Your task to perform on an android device: turn off wifi Image 0: 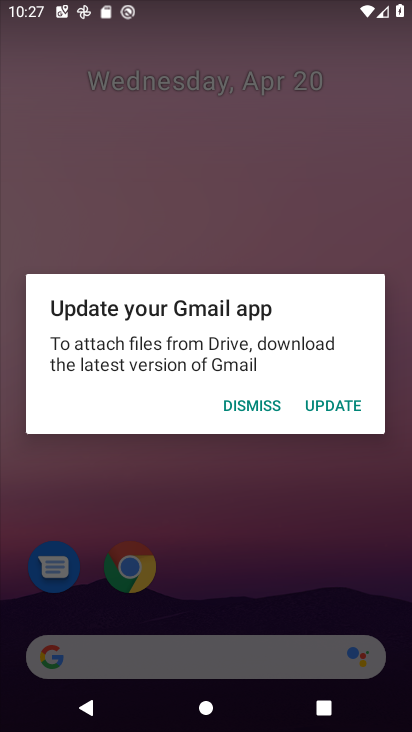
Step 0: press home button
Your task to perform on an android device: turn off wifi Image 1: 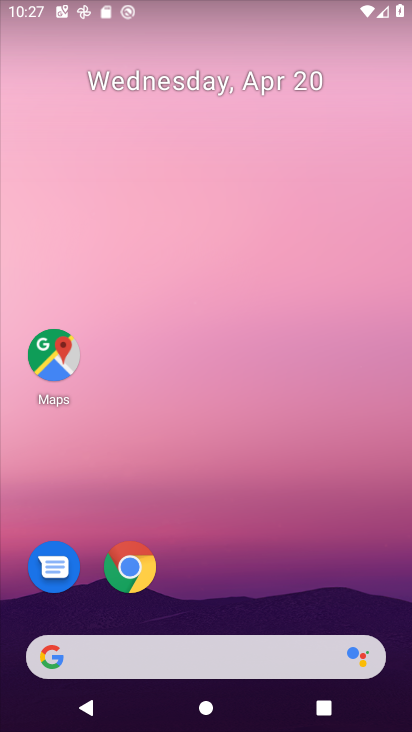
Step 1: drag from (341, 595) to (342, 220)
Your task to perform on an android device: turn off wifi Image 2: 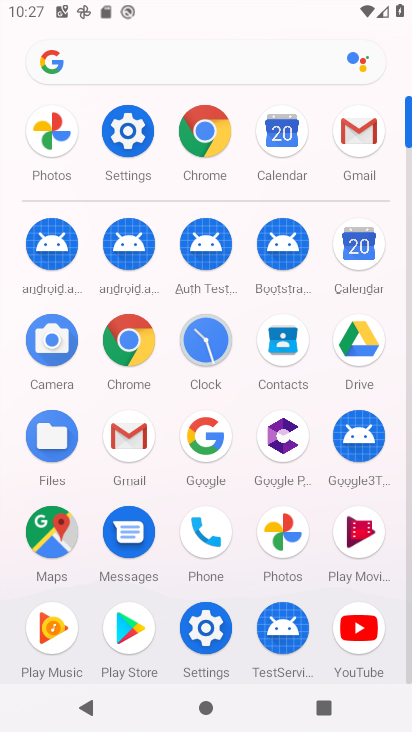
Step 2: click (136, 135)
Your task to perform on an android device: turn off wifi Image 3: 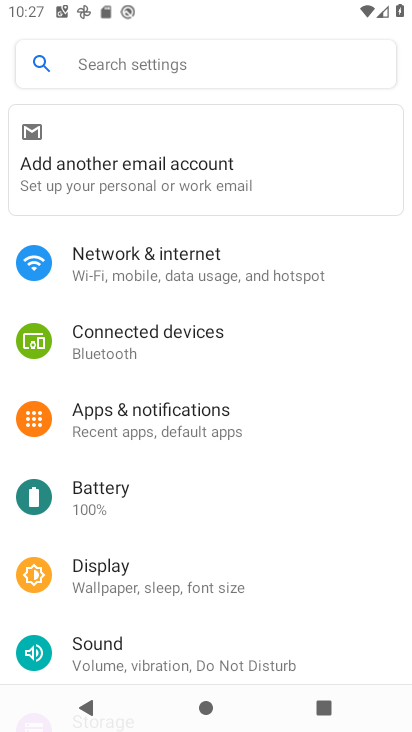
Step 3: drag from (357, 595) to (374, 442)
Your task to perform on an android device: turn off wifi Image 4: 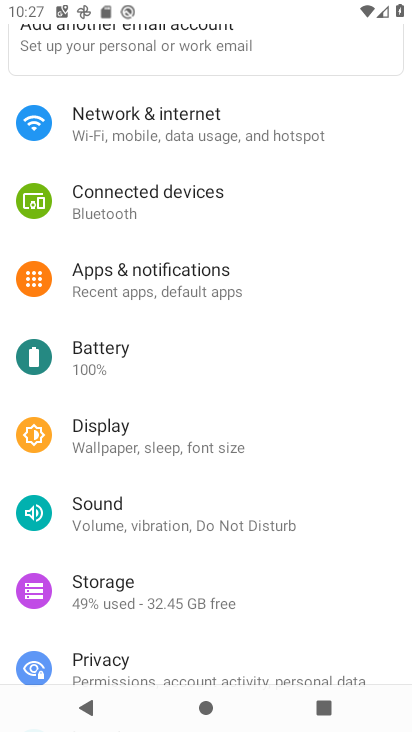
Step 4: drag from (349, 586) to (335, 410)
Your task to perform on an android device: turn off wifi Image 5: 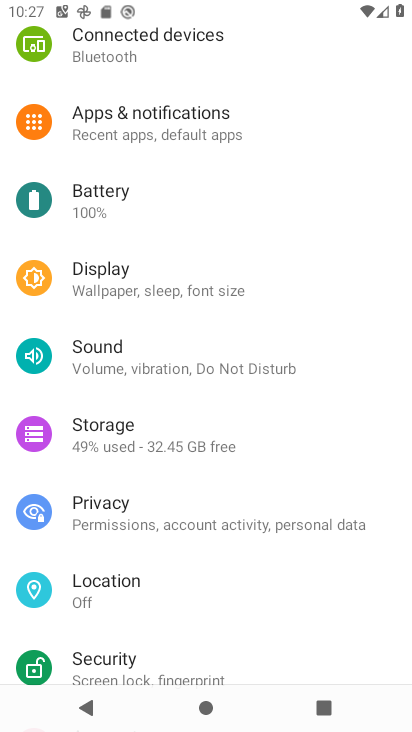
Step 5: drag from (316, 585) to (313, 376)
Your task to perform on an android device: turn off wifi Image 6: 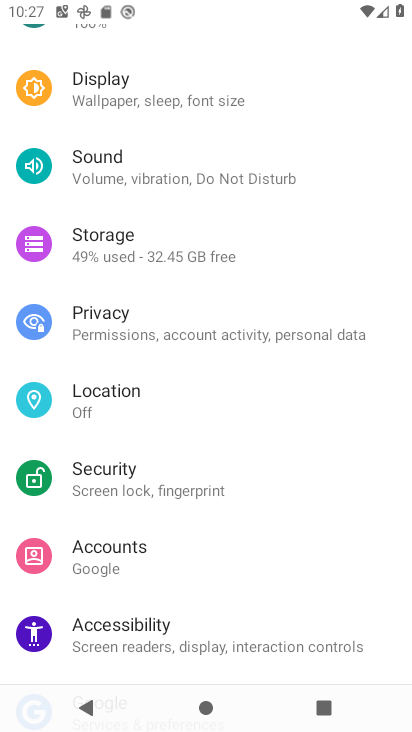
Step 6: drag from (303, 569) to (303, 398)
Your task to perform on an android device: turn off wifi Image 7: 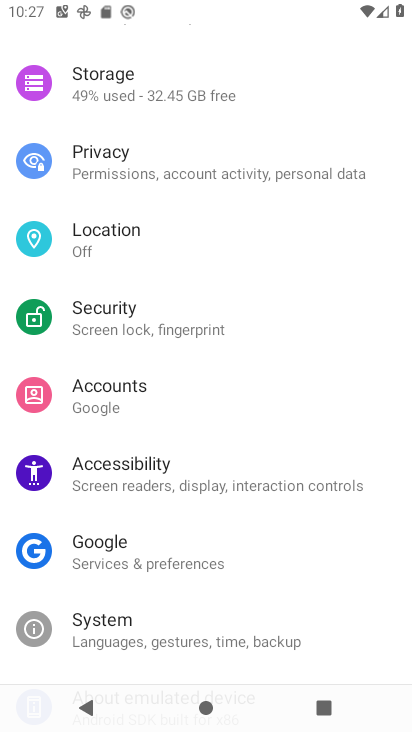
Step 7: drag from (319, 584) to (324, 385)
Your task to perform on an android device: turn off wifi Image 8: 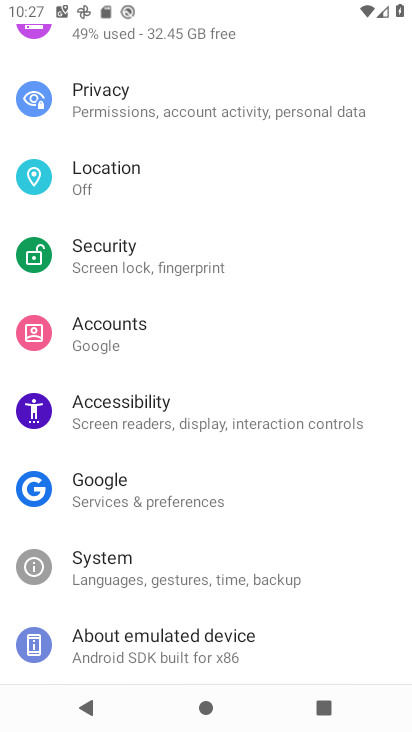
Step 8: drag from (344, 626) to (382, 298)
Your task to perform on an android device: turn off wifi Image 9: 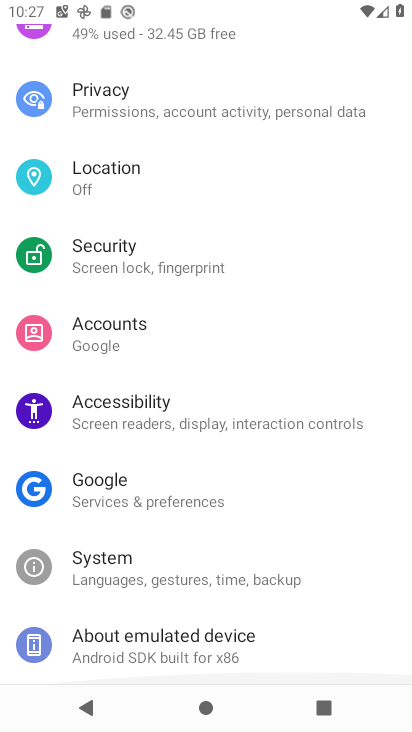
Step 9: drag from (375, 260) to (363, 460)
Your task to perform on an android device: turn off wifi Image 10: 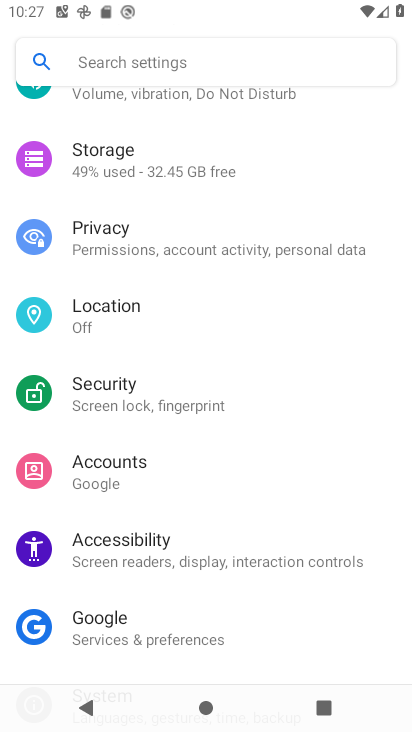
Step 10: drag from (354, 327) to (319, 491)
Your task to perform on an android device: turn off wifi Image 11: 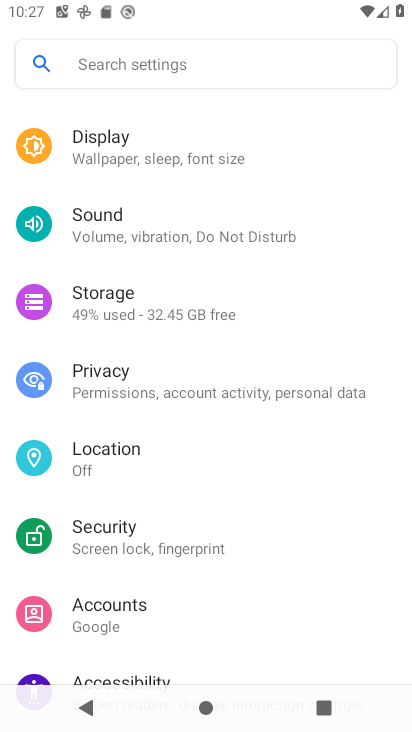
Step 11: drag from (367, 306) to (347, 504)
Your task to perform on an android device: turn off wifi Image 12: 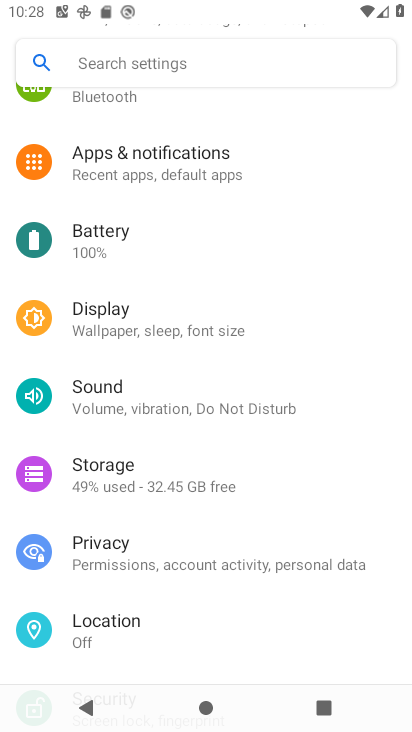
Step 12: drag from (339, 288) to (332, 421)
Your task to perform on an android device: turn off wifi Image 13: 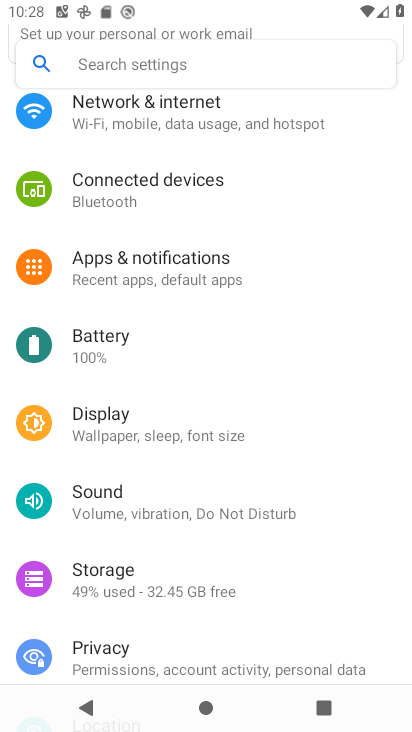
Step 13: drag from (355, 303) to (348, 465)
Your task to perform on an android device: turn off wifi Image 14: 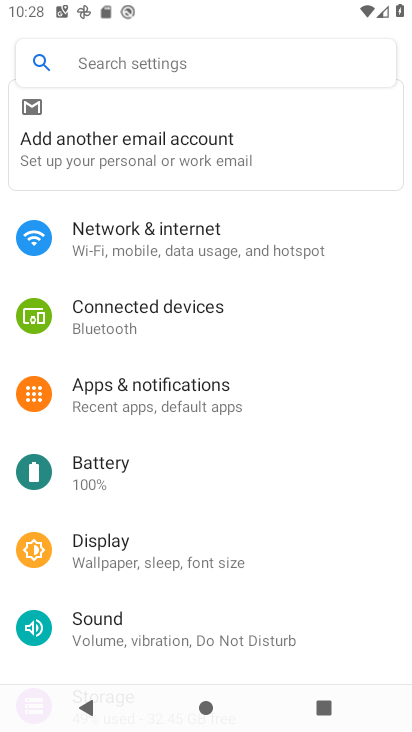
Step 14: drag from (354, 369) to (352, 531)
Your task to perform on an android device: turn off wifi Image 15: 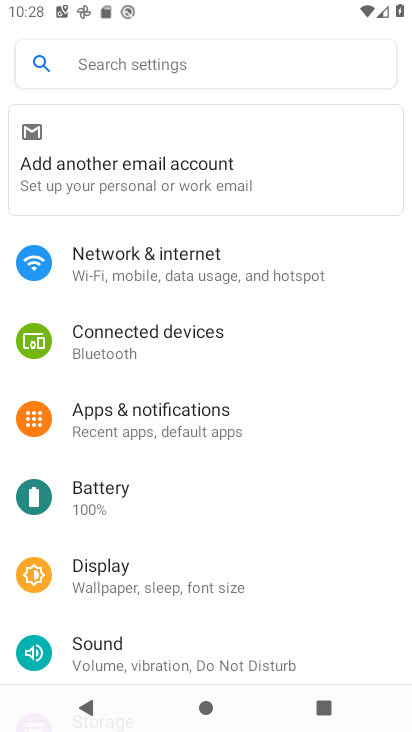
Step 15: click (232, 270)
Your task to perform on an android device: turn off wifi Image 16: 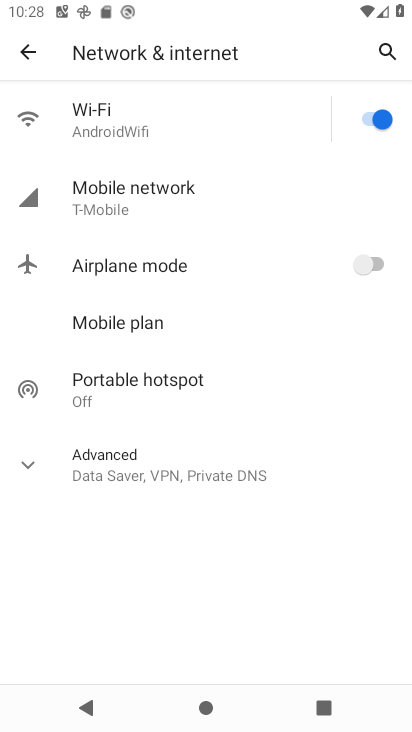
Step 16: click (374, 118)
Your task to perform on an android device: turn off wifi Image 17: 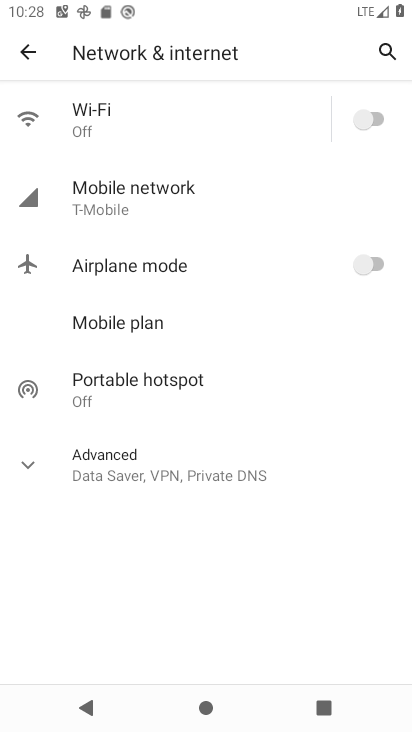
Step 17: task complete